Your task to perform on an android device: star an email in the gmail app Image 0: 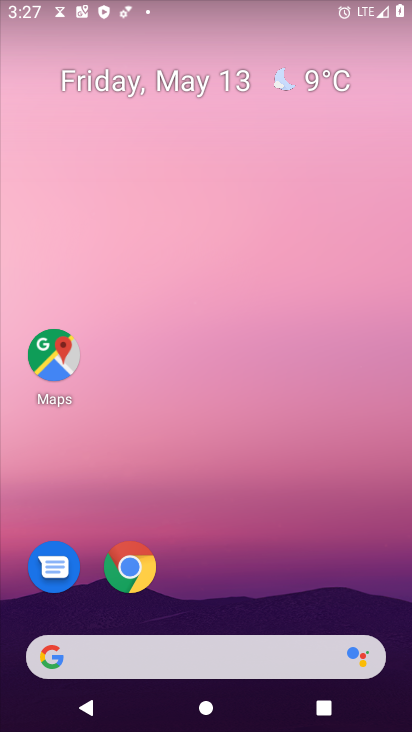
Step 0: drag from (282, 614) to (308, 0)
Your task to perform on an android device: star an email in the gmail app Image 1: 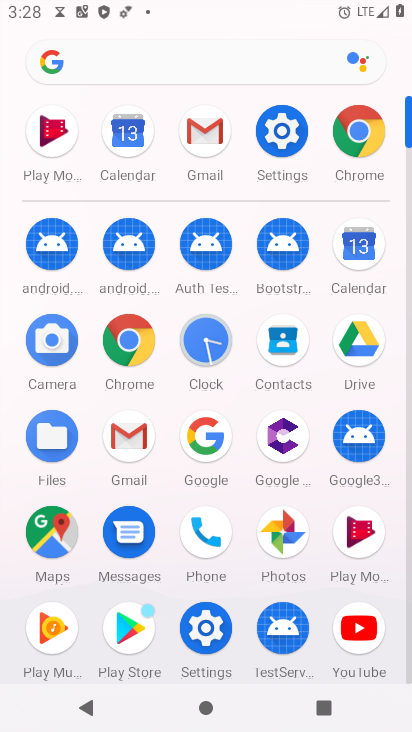
Step 1: click (195, 148)
Your task to perform on an android device: star an email in the gmail app Image 2: 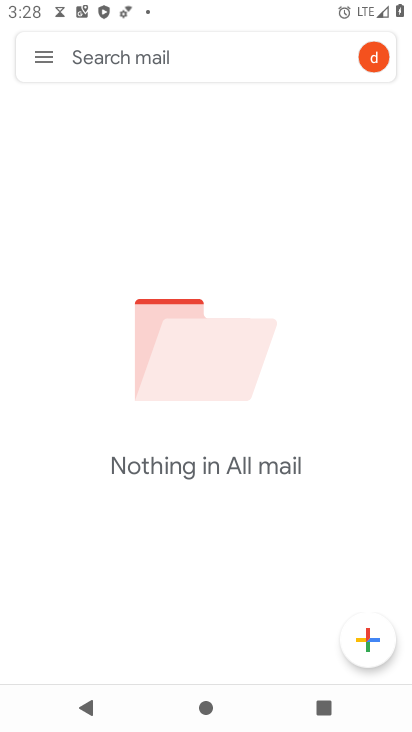
Step 2: task complete